Your task to perform on an android device: Go to eBay Image 0: 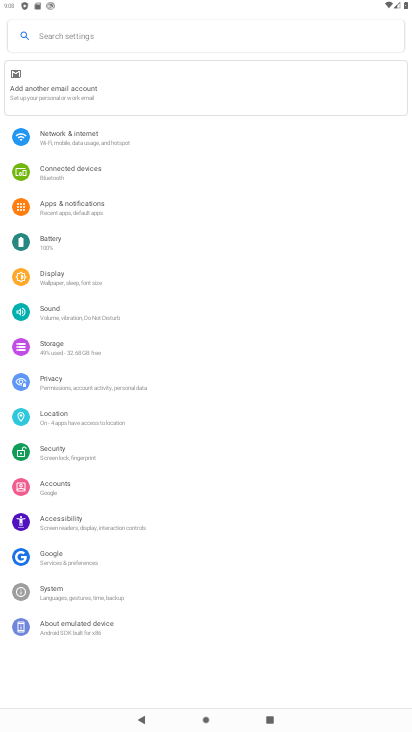
Step 0: press home button
Your task to perform on an android device: Go to eBay Image 1: 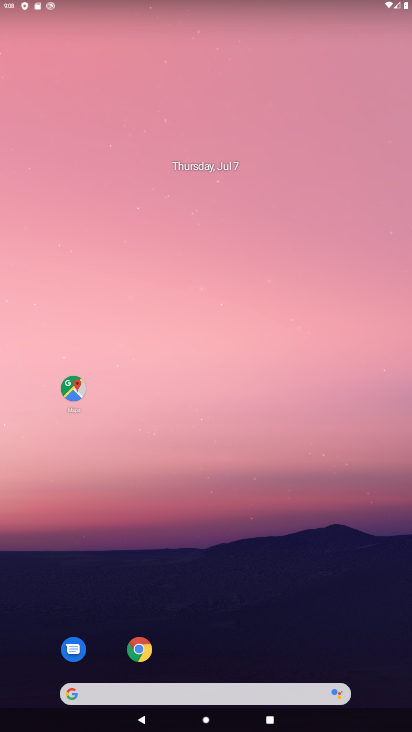
Step 1: click (264, 199)
Your task to perform on an android device: Go to eBay Image 2: 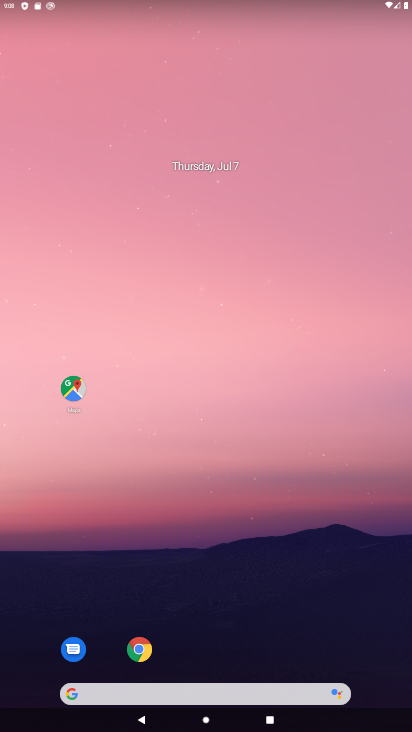
Step 2: drag from (233, 520) to (286, 335)
Your task to perform on an android device: Go to eBay Image 3: 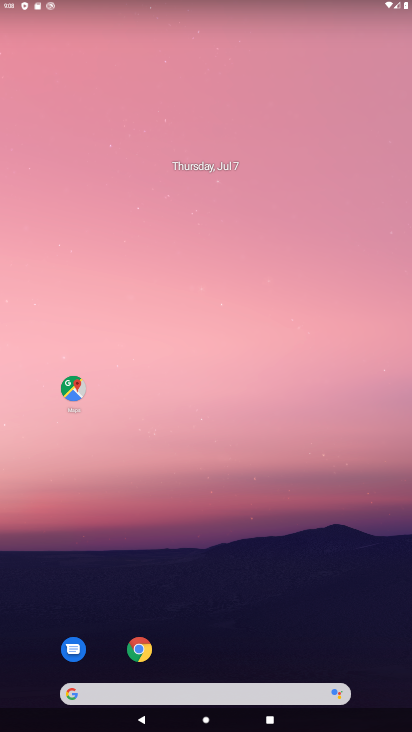
Step 3: drag from (251, 561) to (224, 209)
Your task to perform on an android device: Go to eBay Image 4: 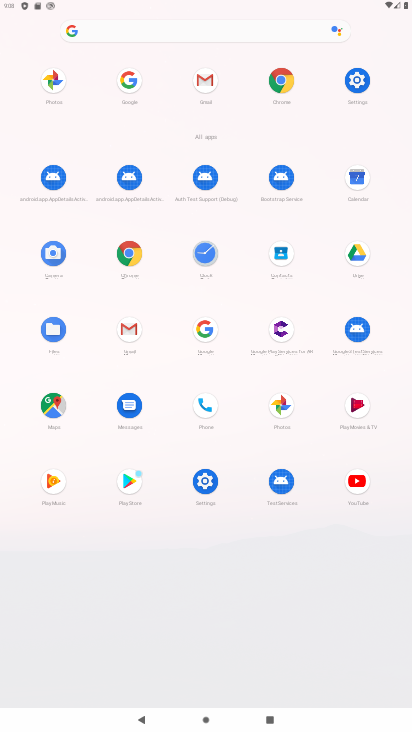
Step 4: press home button
Your task to perform on an android device: Go to eBay Image 5: 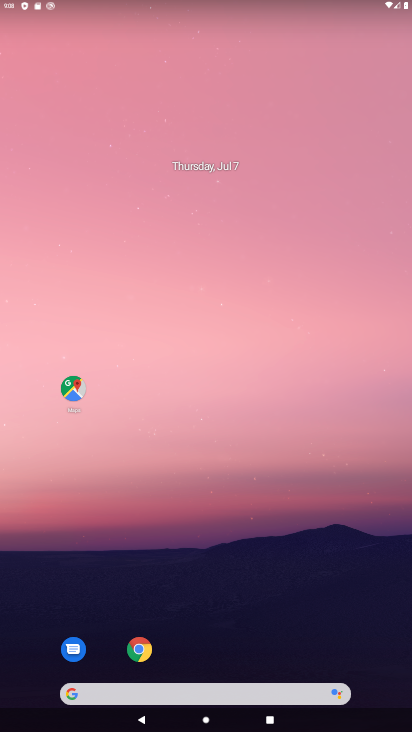
Step 5: drag from (267, 559) to (242, 343)
Your task to perform on an android device: Go to eBay Image 6: 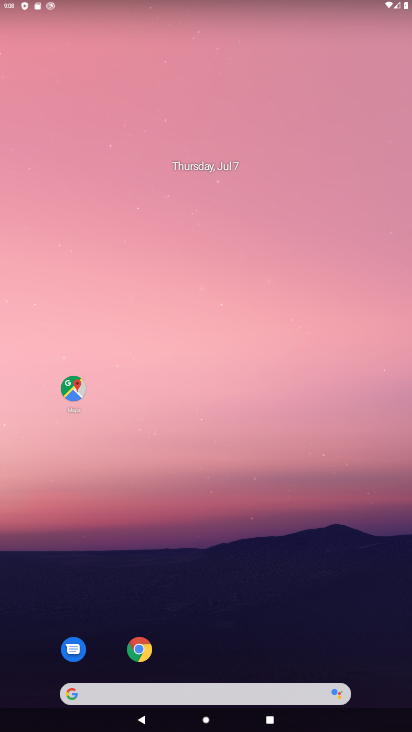
Step 6: click (234, 694)
Your task to perform on an android device: Go to eBay Image 7: 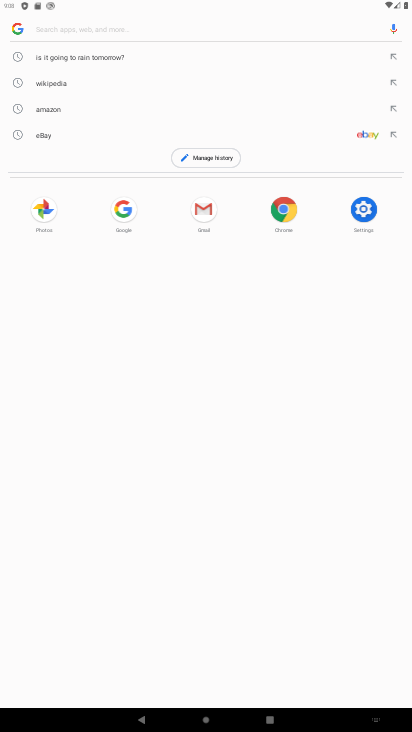
Step 7: type "eBay"
Your task to perform on an android device: Go to eBay Image 8: 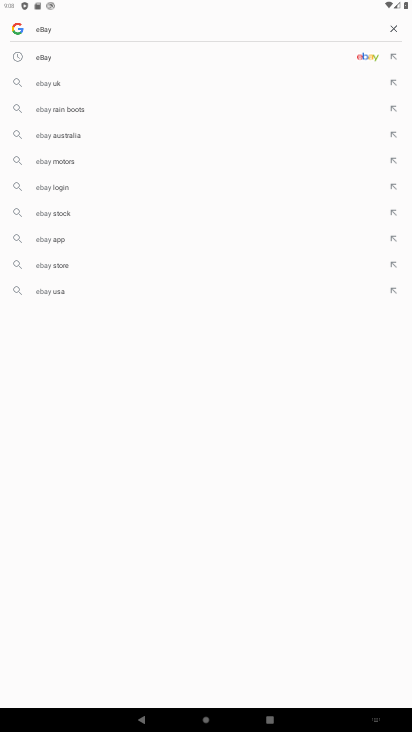
Step 8: press enter
Your task to perform on an android device: Go to eBay Image 9: 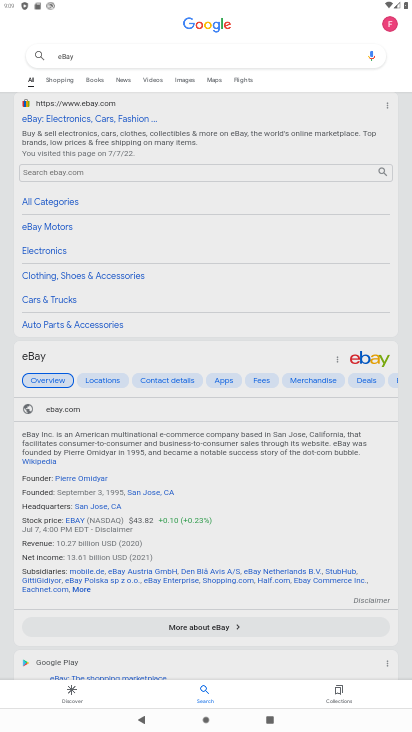
Step 9: click (101, 119)
Your task to perform on an android device: Go to eBay Image 10: 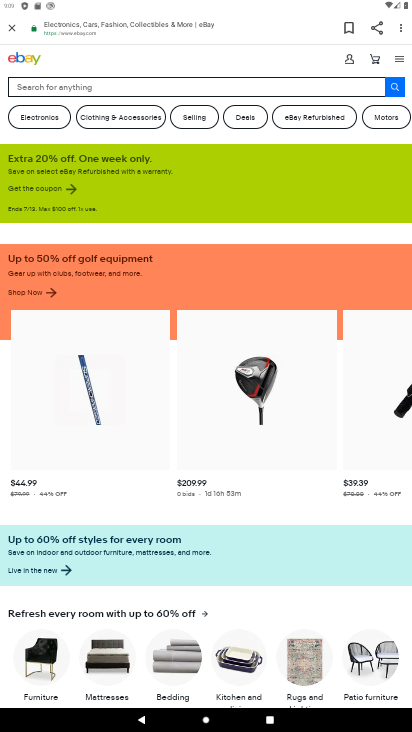
Step 10: task complete